Your task to perform on an android device: toggle data saver in the chrome app Image 0: 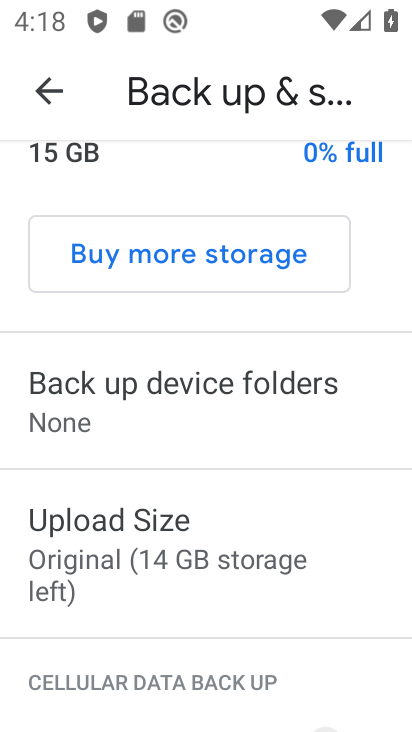
Step 0: press home button
Your task to perform on an android device: toggle data saver in the chrome app Image 1: 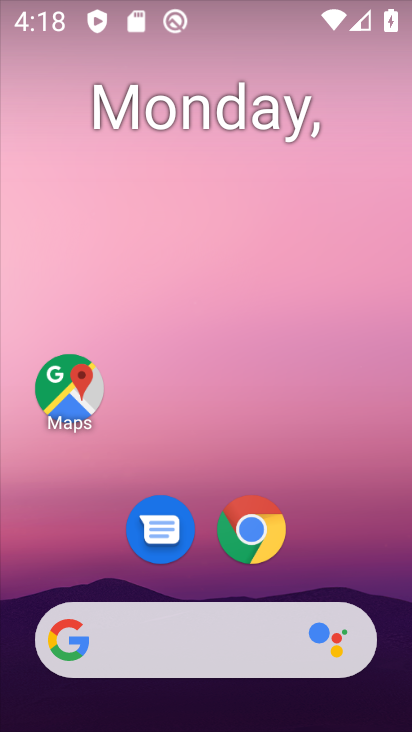
Step 1: drag from (227, 513) to (327, 48)
Your task to perform on an android device: toggle data saver in the chrome app Image 2: 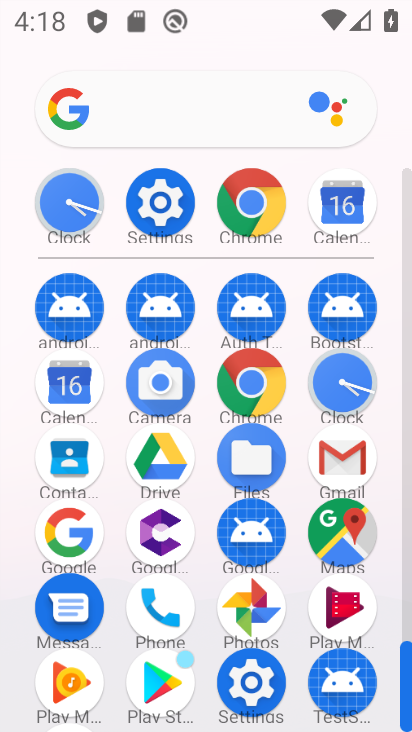
Step 2: click (152, 225)
Your task to perform on an android device: toggle data saver in the chrome app Image 3: 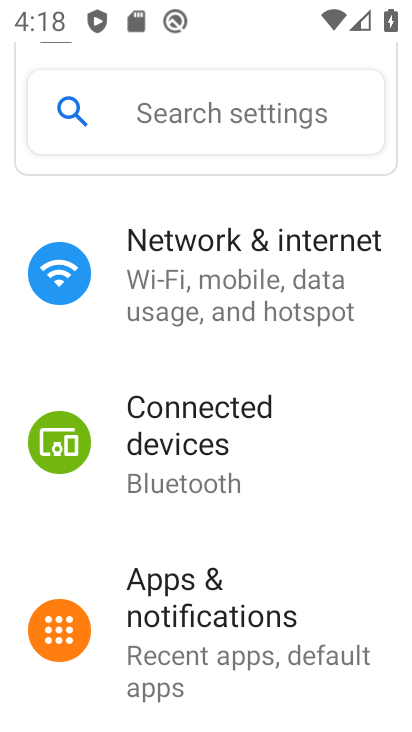
Step 3: click (281, 307)
Your task to perform on an android device: toggle data saver in the chrome app Image 4: 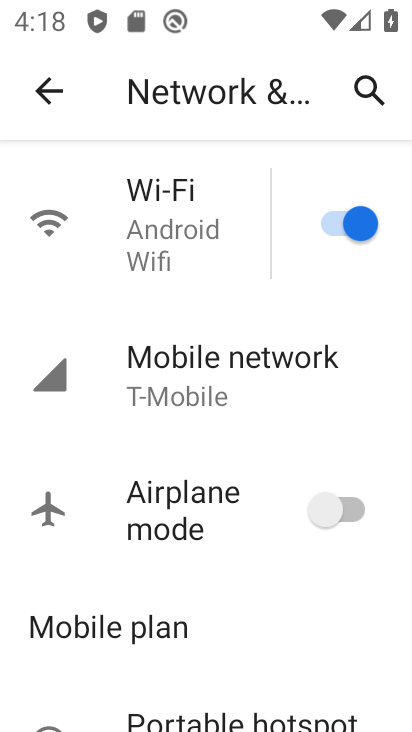
Step 4: press home button
Your task to perform on an android device: toggle data saver in the chrome app Image 5: 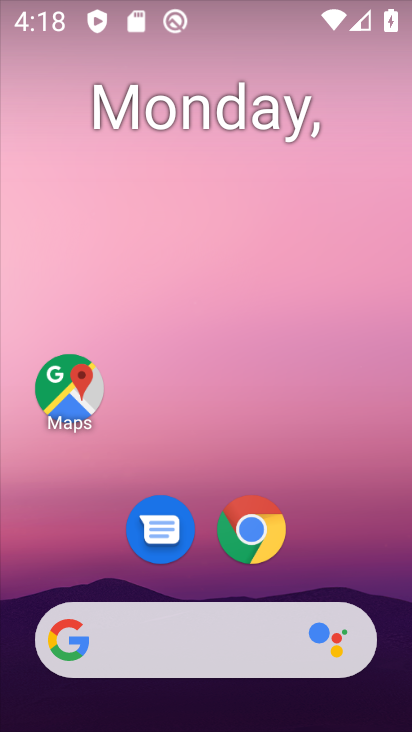
Step 5: click (223, 526)
Your task to perform on an android device: toggle data saver in the chrome app Image 6: 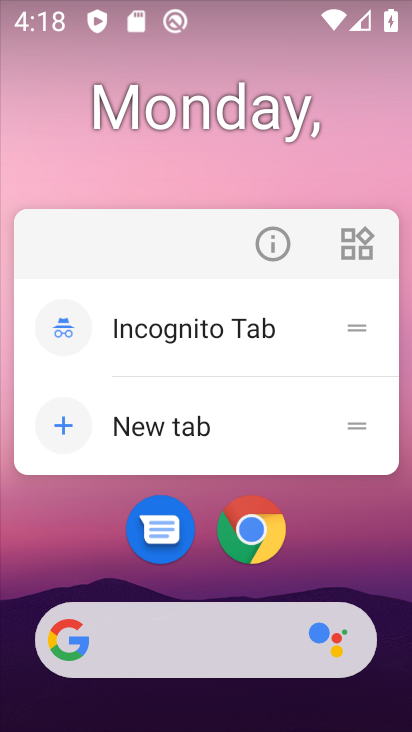
Step 6: click (264, 544)
Your task to perform on an android device: toggle data saver in the chrome app Image 7: 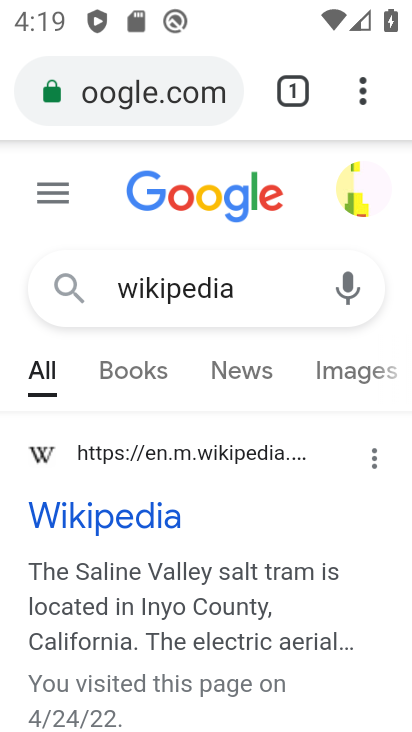
Step 7: click (369, 97)
Your task to perform on an android device: toggle data saver in the chrome app Image 8: 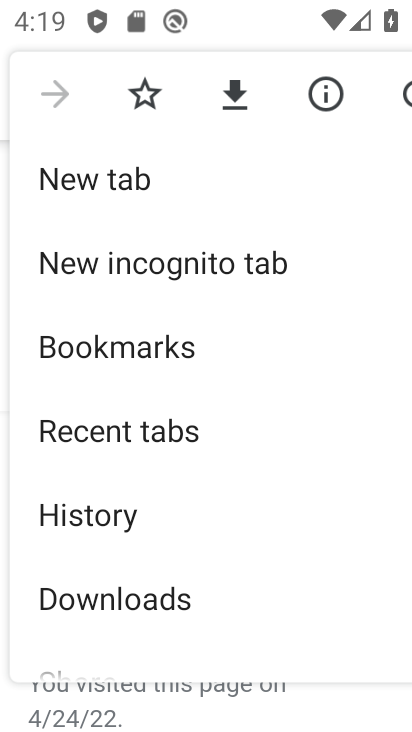
Step 8: drag from (123, 518) to (212, 201)
Your task to perform on an android device: toggle data saver in the chrome app Image 9: 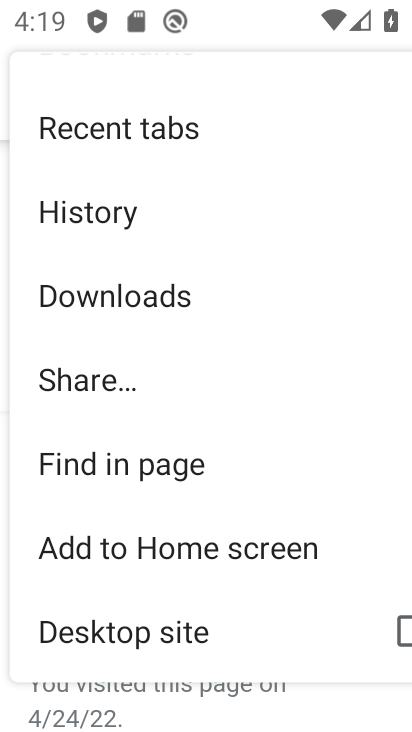
Step 9: drag from (104, 594) to (165, 316)
Your task to perform on an android device: toggle data saver in the chrome app Image 10: 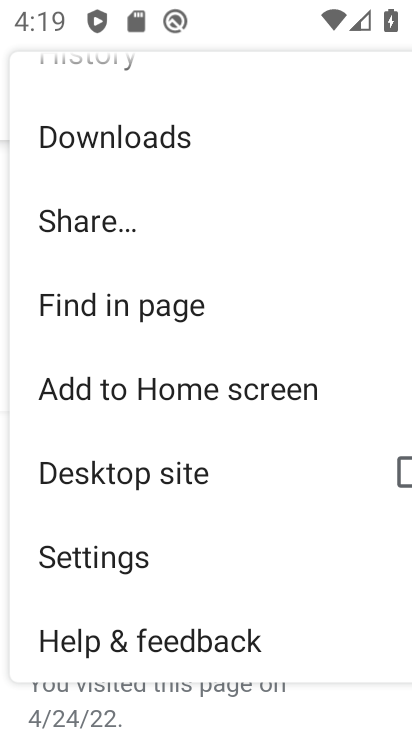
Step 10: click (95, 566)
Your task to perform on an android device: toggle data saver in the chrome app Image 11: 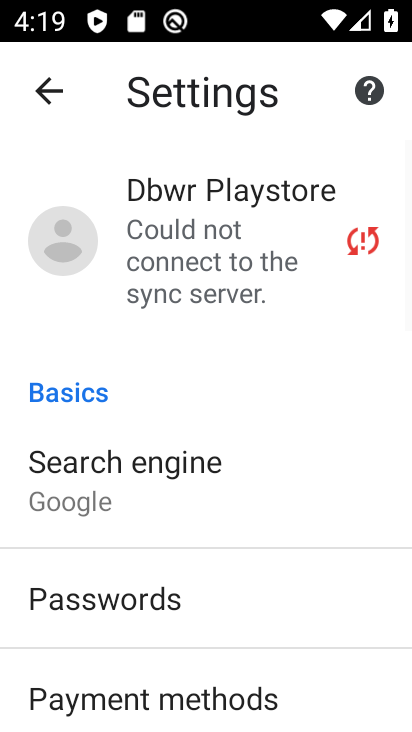
Step 11: drag from (172, 550) to (230, 324)
Your task to perform on an android device: toggle data saver in the chrome app Image 12: 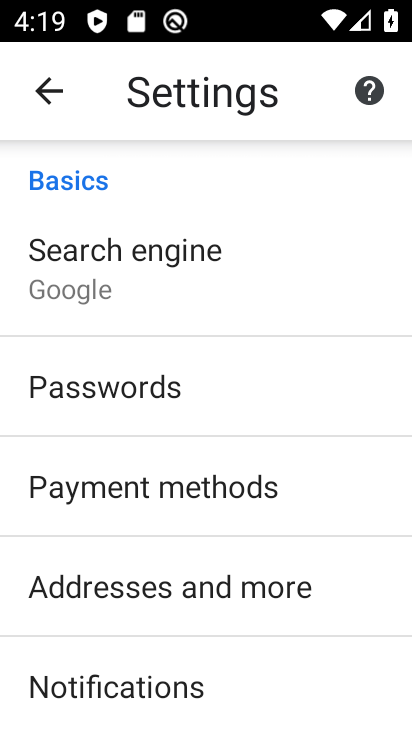
Step 12: drag from (183, 529) to (212, 318)
Your task to perform on an android device: toggle data saver in the chrome app Image 13: 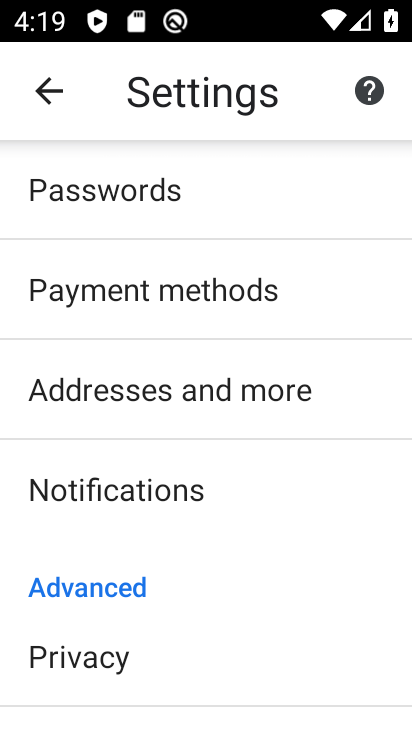
Step 13: drag from (176, 614) to (231, 316)
Your task to perform on an android device: toggle data saver in the chrome app Image 14: 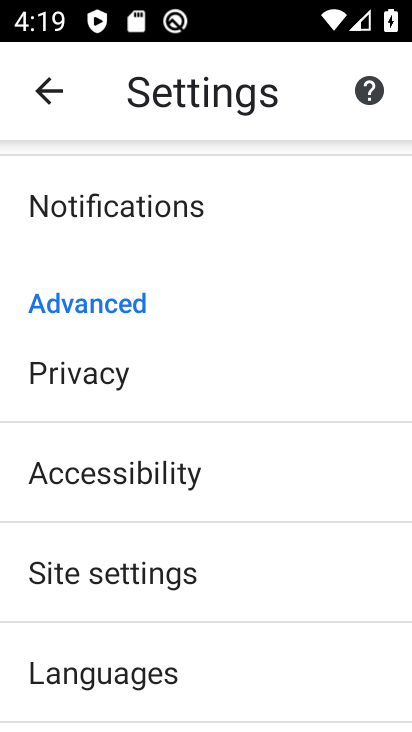
Step 14: drag from (92, 592) to (111, 415)
Your task to perform on an android device: toggle data saver in the chrome app Image 15: 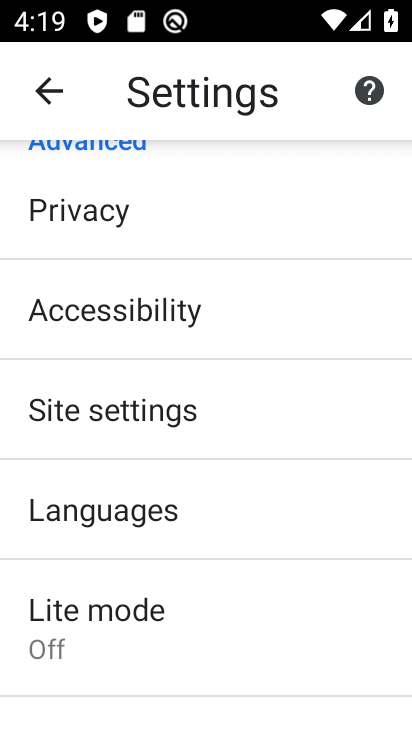
Step 15: click (101, 625)
Your task to perform on an android device: toggle data saver in the chrome app Image 16: 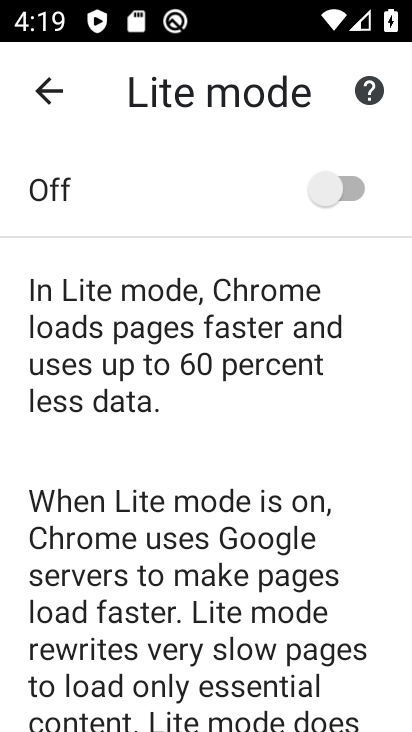
Step 16: click (367, 188)
Your task to perform on an android device: toggle data saver in the chrome app Image 17: 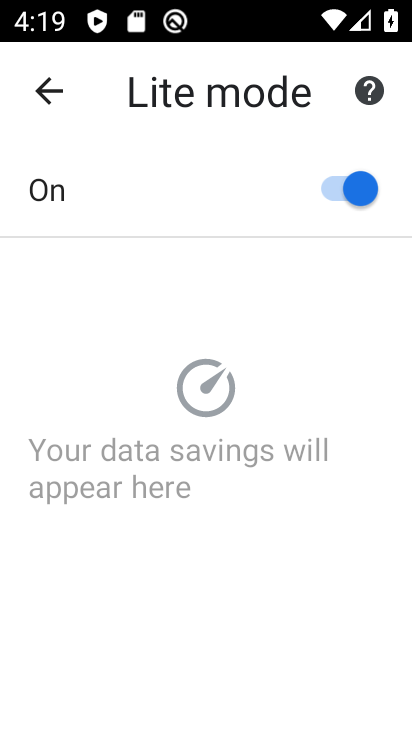
Step 17: task complete